Your task to perform on an android device: Go to Google maps Image 0: 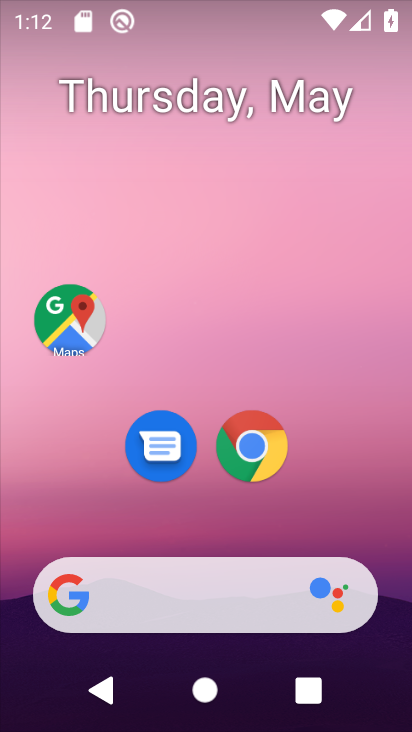
Step 0: drag from (198, 562) to (256, 27)
Your task to perform on an android device: Go to Google maps Image 1: 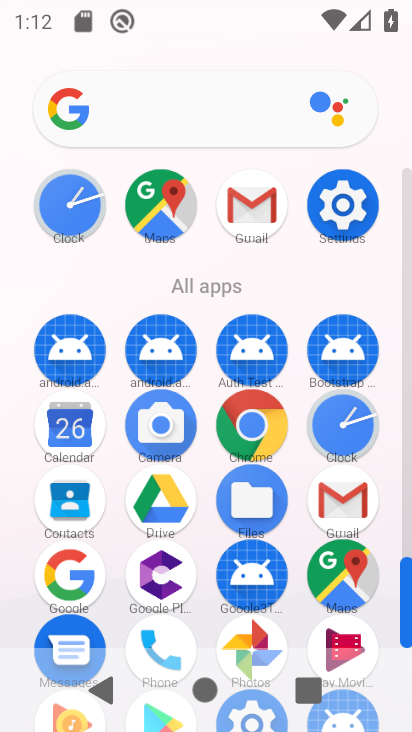
Step 1: click (342, 587)
Your task to perform on an android device: Go to Google maps Image 2: 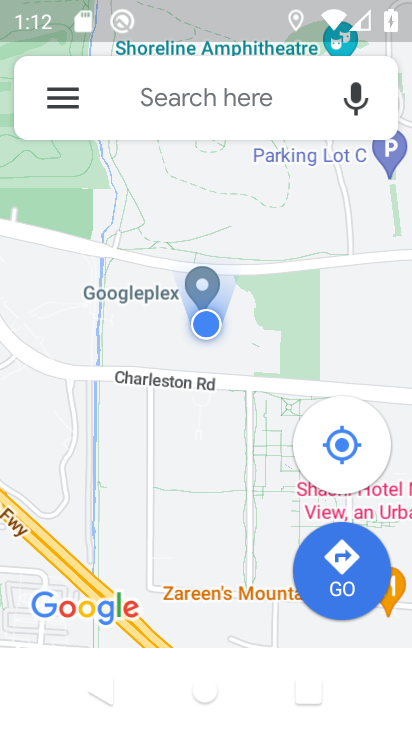
Step 2: task complete